Your task to perform on an android device: open a new tab in the chrome app Image 0: 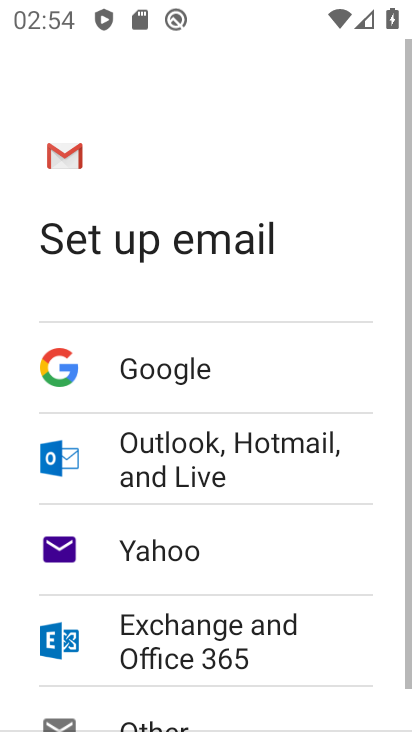
Step 0: press back button
Your task to perform on an android device: open a new tab in the chrome app Image 1: 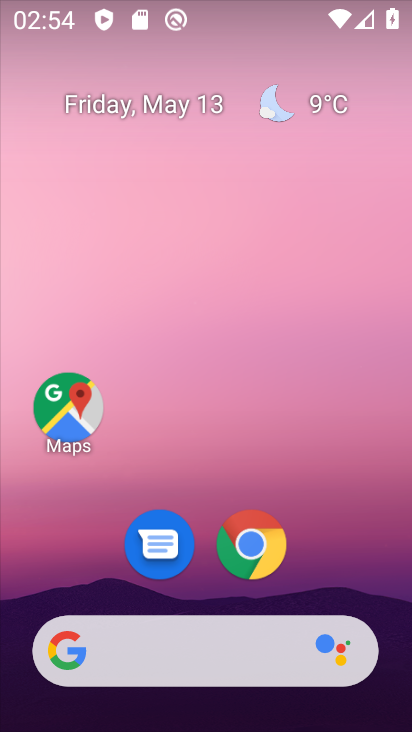
Step 1: drag from (339, 551) to (295, 53)
Your task to perform on an android device: open a new tab in the chrome app Image 2: 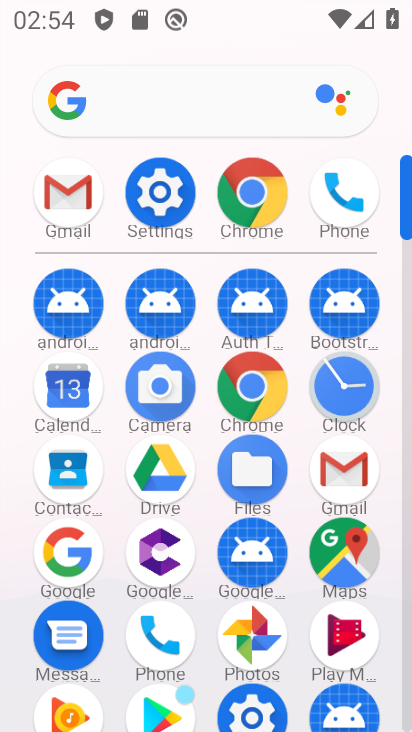
Step 2: click (252, 378)
Your task to perform on an android device: open a new tab in the chrome app Image 3: 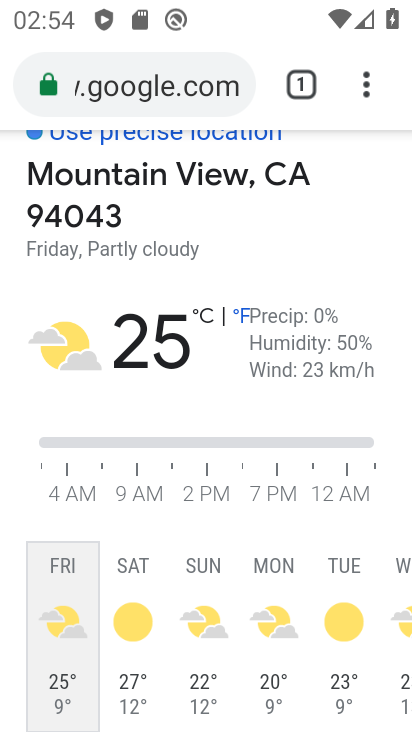
Step 3: task complete